Your task to perform on an android device: Go to settings Image 0: 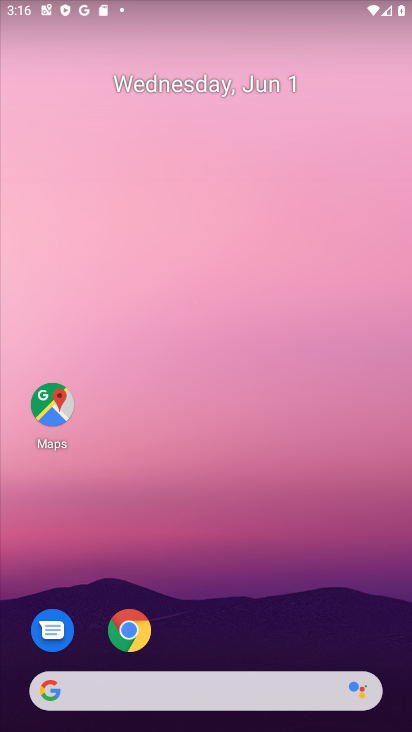
Step 0: drag from (259, 487) to (266, 133)
Your task to perform on an android device: Go to settings Image 1: 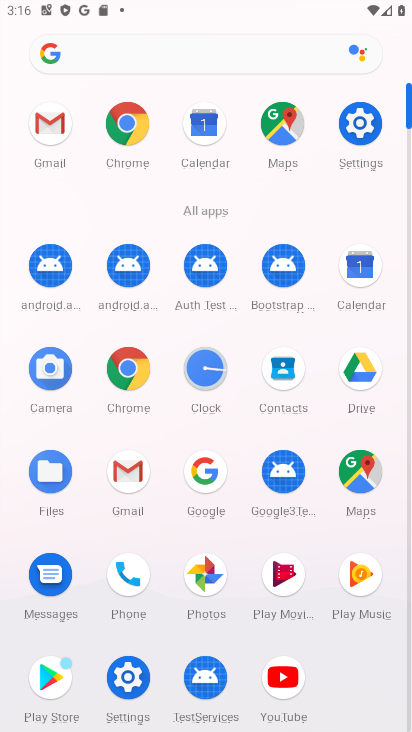
Step 1: click (356, 122)
Your task to perform on an android device: Go to settings Image 2: 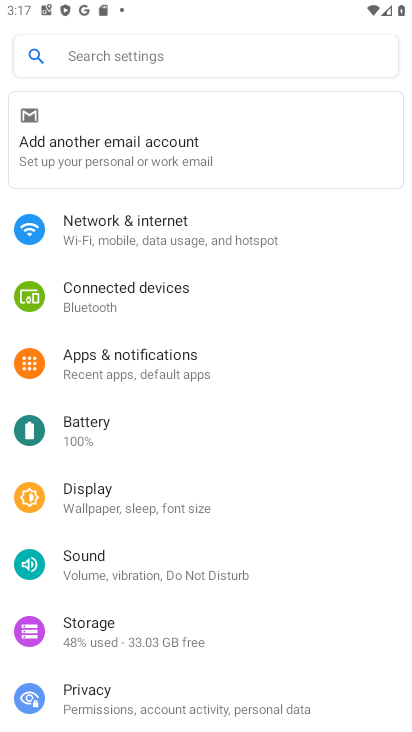
Step 2: task complete